Your task to perform on an android device: Search for "bose quietcomfort 35" on walmart, select the first entry, add it to the cart, then select checkout. Image 0: 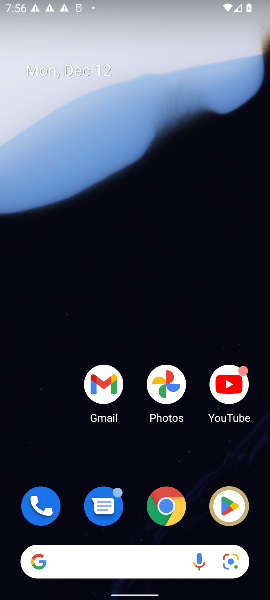
Step 0: click (120, 569)
Your task to perform on an android device: Search for "bose quietcomfort 35" on walmart, select the first entry, add it to the cart, then select checkout. Image 1: 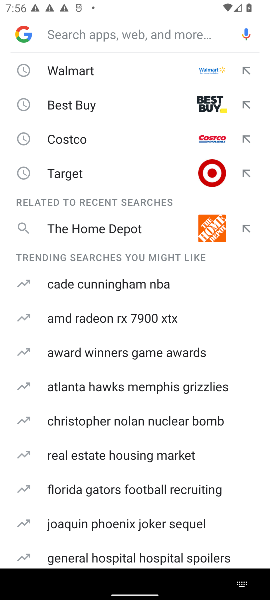
Step 1: type "walmart"
Your task to perform on an android device: Search for "bose quietcomfort 35" on walmart, select the first entry, add it to the cart, then select checkout. Image 2: 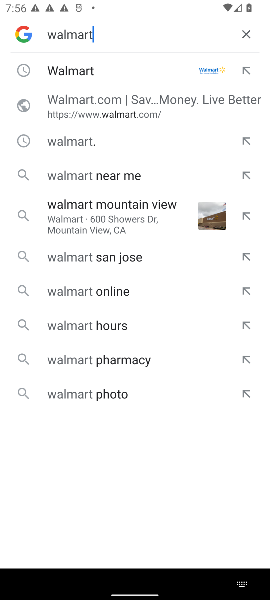
Step 2: click (124, 71)
Your task to perform on an android device: Search for "bose quietcomfort 35" on walmart, select the first entry, add it to the cart, then select checkout. Image 3: 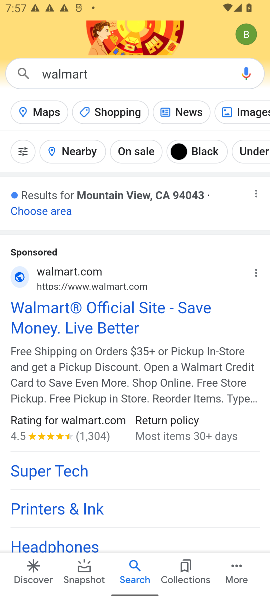
Step 3: click (105, 310)
Your task to perform on an android device: Search for "bose quietcomfort 35" on walmart, select the first entry, add it to the cart, then select checkout. Image 4: 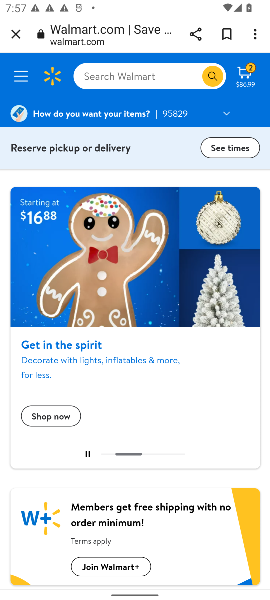
Step 4: click (118, 73)
Your task to perform on an android device: Search for "bose quietcomfort 35" on walmart, select the first entry, add it to the cart, then select checkout. Image 5: 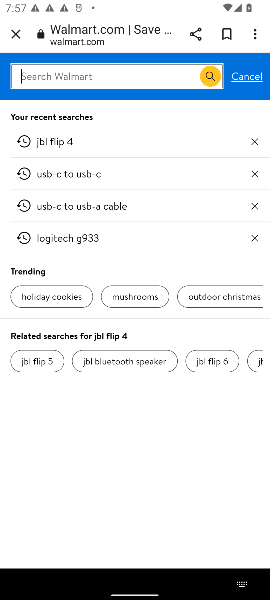
Step 5: type "bose quietcomfort 35"
Your task to perform on an android device: Search for "bose quietcomfort 35" on walmart, select the first entry, add it to the cart, then select checkout. Image 6: 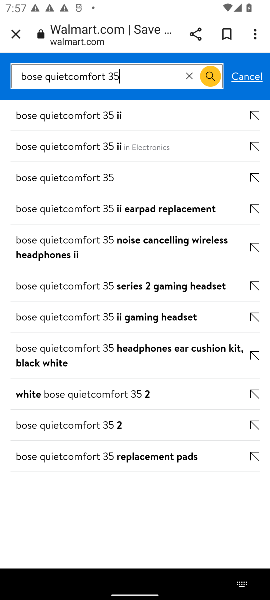
Step 6: click (91, 177)
Your task to perform on an android device: Search for "bose quietcomfort 35" on walmart, select the first entry, add it to the cart, then select checkout. Image 7: 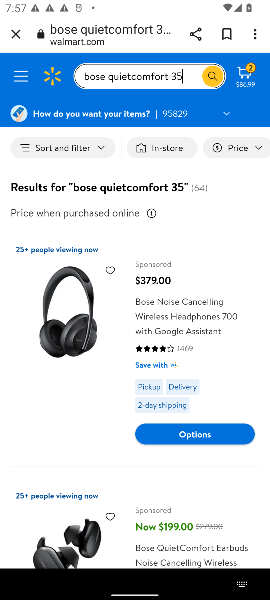
Step 7: click (190, 427)
Your task to perform on an android device: Search for "bose quietcomfort 35" on walmart, select the first entry, add it to the cart, then select checkout. Image 8: 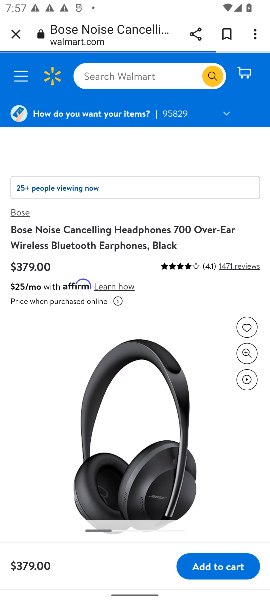
Step 8: click (187, 559)
Your task to perform on an android device: Search for "bose quietcomfort 35" on walmart, select the first entry, add it to the cart, then select checkout. Image 9: 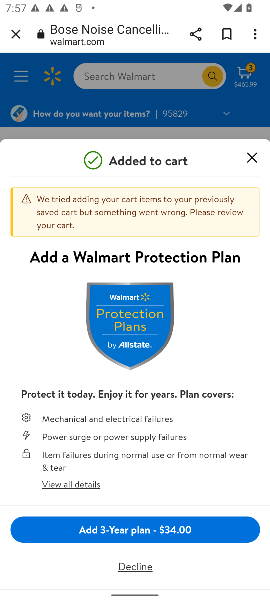
Step 9: task complete